Your task to perform on an android device: empty trash in google photos Image 0: 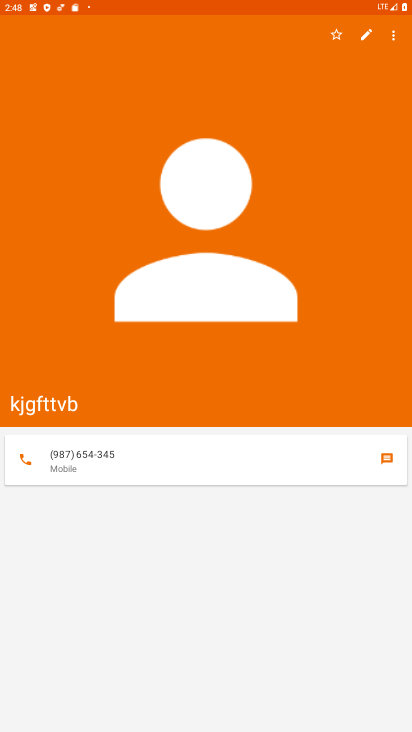
Step 0: press home button
Your task to perform on an android device: empty trash in google photos Image 1: 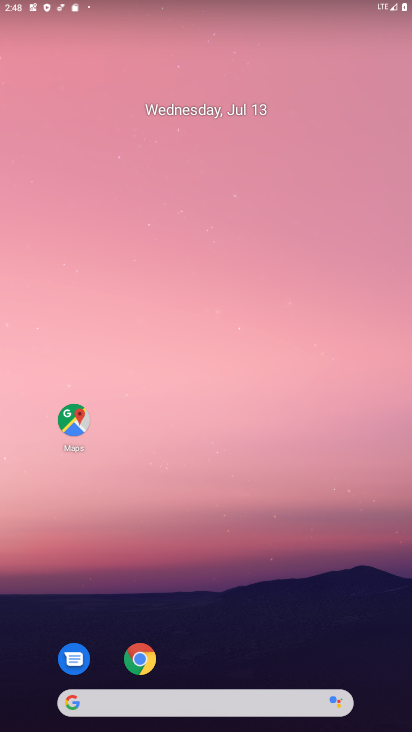
Step 1: drag from (385, 693) to (336, 141)
Your task to perform on an android device: empty trash in google photos Image 2: 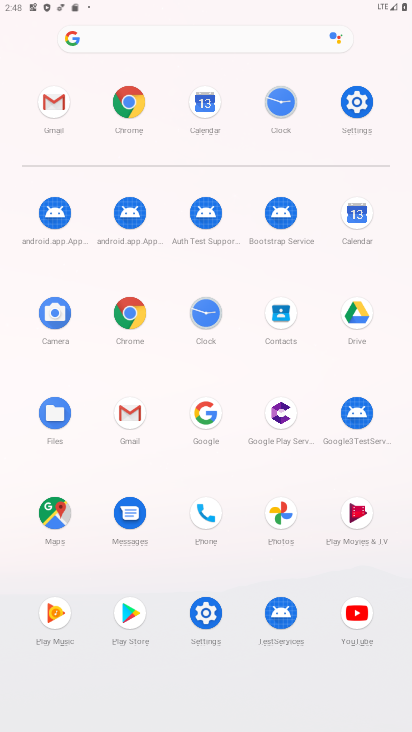
Step 2: click (281, 517)
Your task to perform on an android device: empty trash in google photos Image 3: 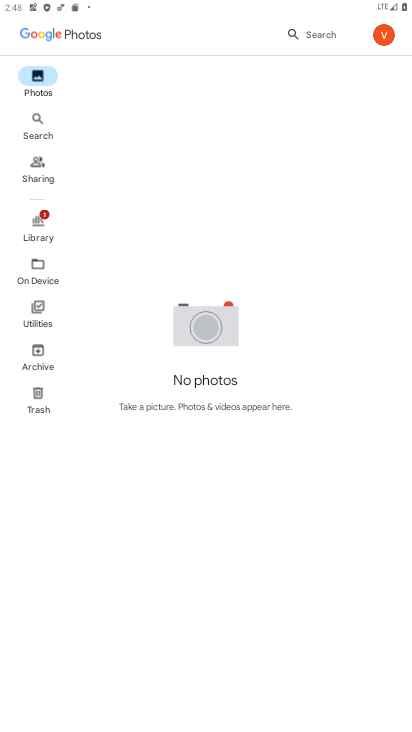
Step 3: click (37, 395)
Your task to perform on an android device: empty trash in google photos Image 4: 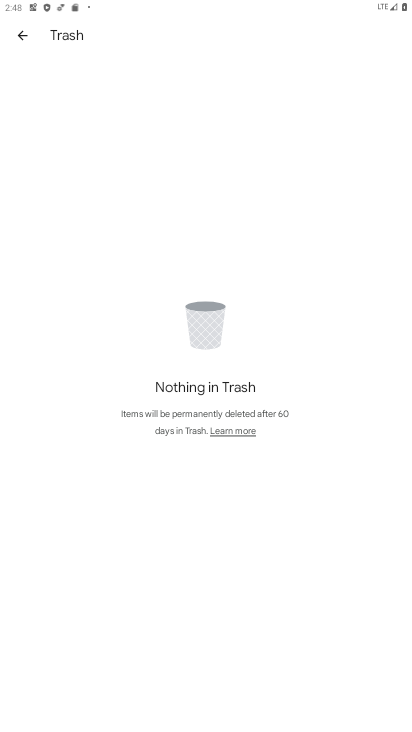
Step 4: task complete